Your task to perform on an android device: Open sound settings Image 0: 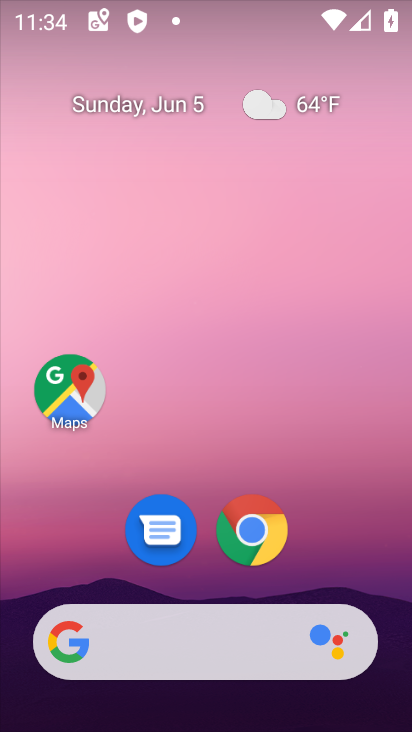
Step 0: drag from (337, 548) to (286, 10)
Your task to perform on an android device: Open sound settings Image 1: 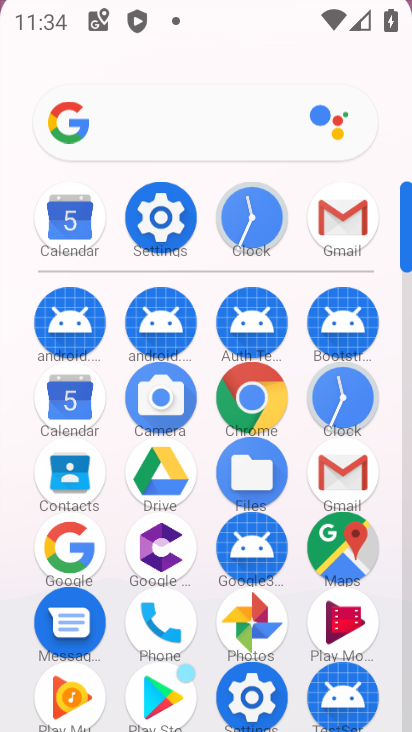
Step 1: click (155, 211)
Your task to perform on an android device: Open sound settings Image 2: 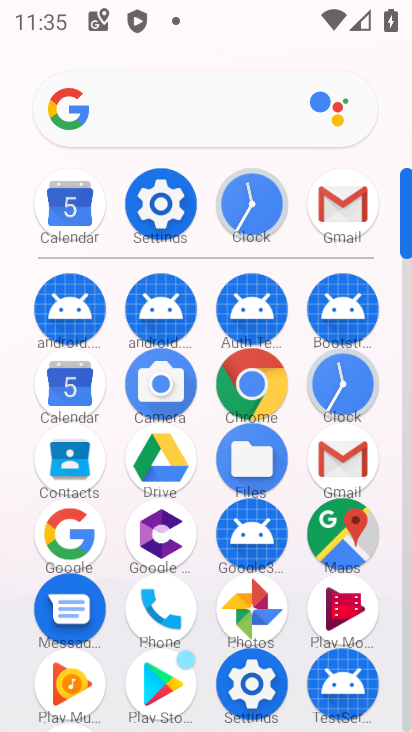
Step 2: click (155, 210)
Your task to perform on an android device: Open sound settings Image 3: 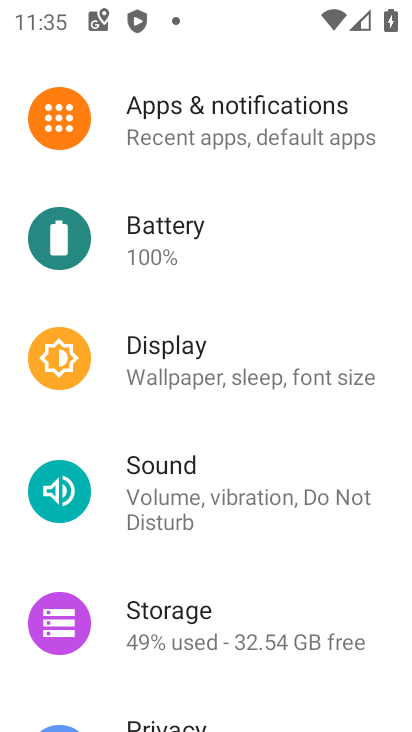
Step 3: click (182, 499)
Your task to perform on an android device: Open sound settings Image 4: 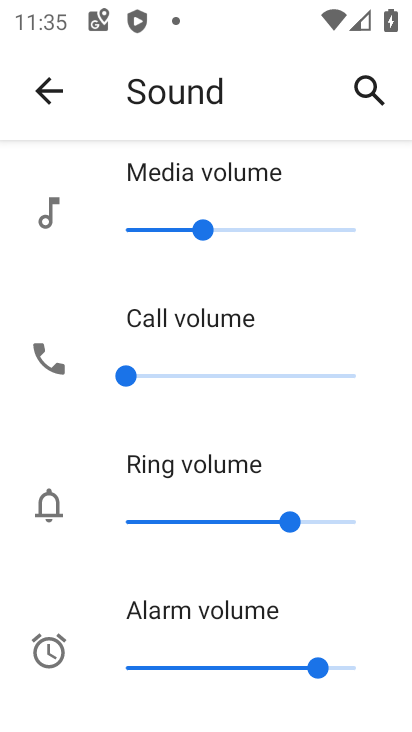
Step 4: task complete